Your task to perform on an android device: show emergency info Image 0: 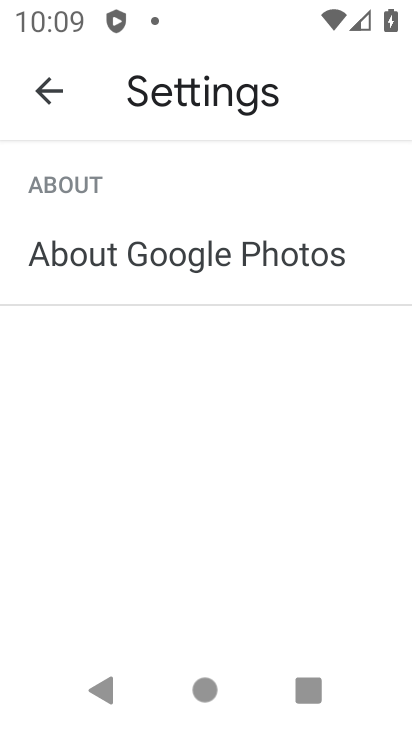
Step 0: press home button
Your task to perform on an android device: show emergency info Image 1: 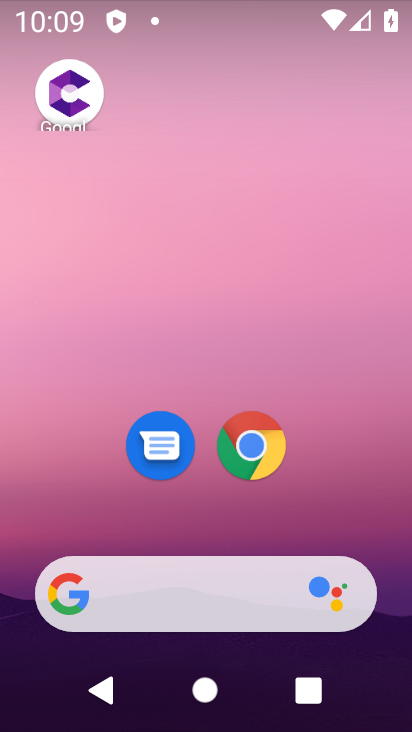
Step 1: drag from (236, 724) to (231, 9)
Your task to perform on an android device: show emergency info Image 2: 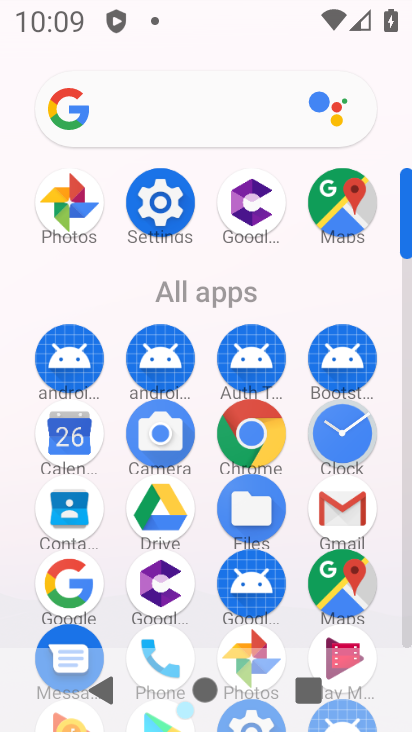
Step 2: click (152, 201)
Your task to perform on an android device: show emergency info Image 3: 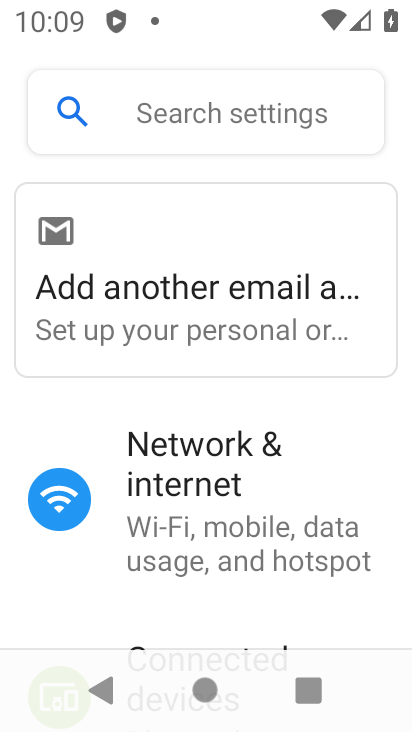
Step 3: drag from (329, 635) to (319, 102)
Your task to perform on an android device: show emergency info Image 4: 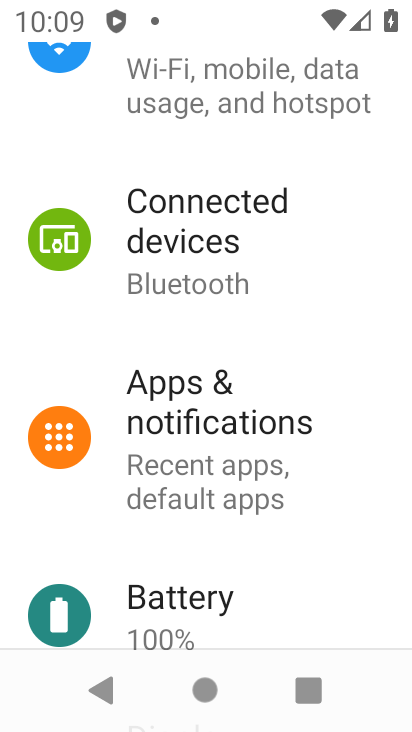
Step 4: drag from (325, 635) to (326, 113)
Your task to perform on an android device: show emergency info Image 5: 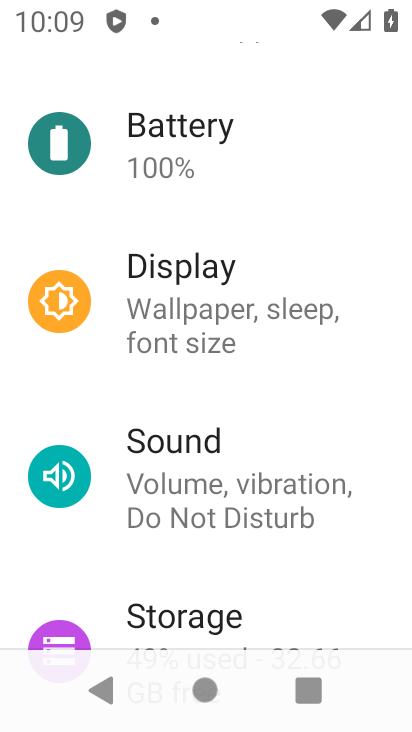
Step 5: drag from (329, 630) to (332, 138)
Your task to perform on an android device: show emergency info Image 6: 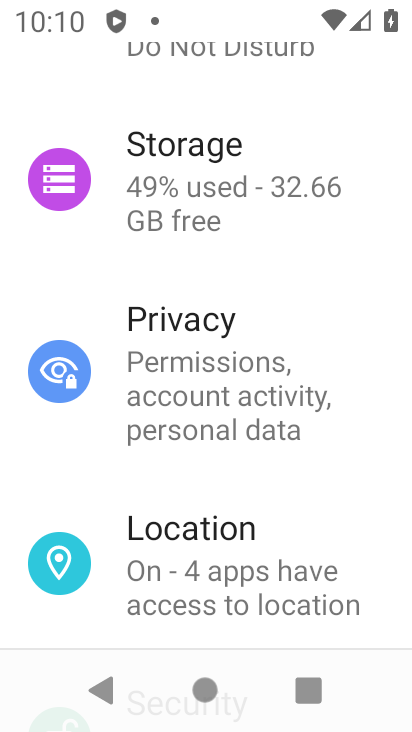
Step 6: drag from (322, 638) to (310, 164)
Your task to perform on an android device: show emergency info Image 7: 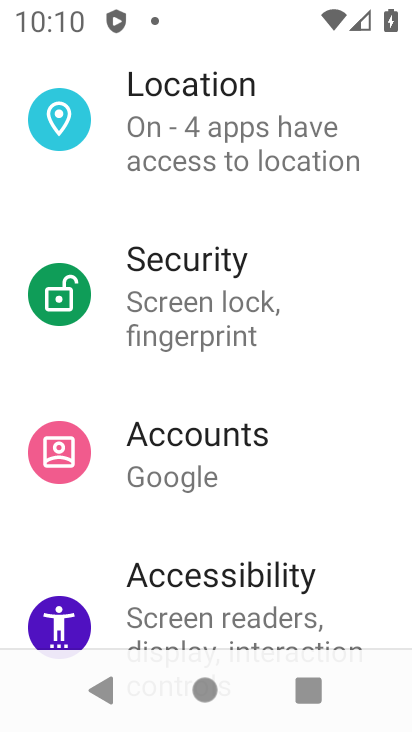
Step 7: drag from (339, 624) to (333, 147)
Your task to perform on an android device: show emergency info Image 8: 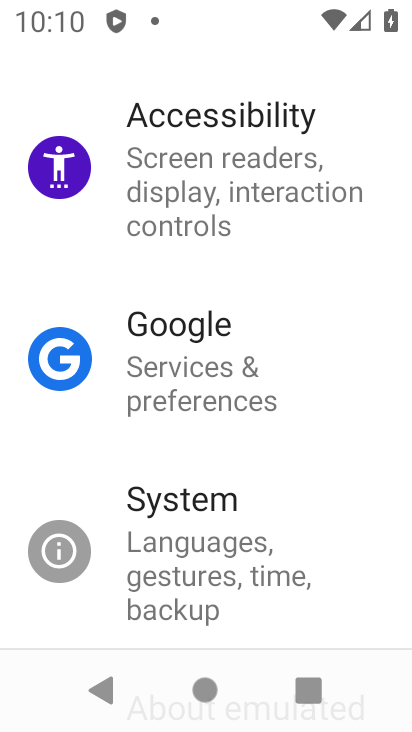
Step 8: drag from (326, 639) to (323, 105)
Your task to perform on an android device: show emergency info Image 9: 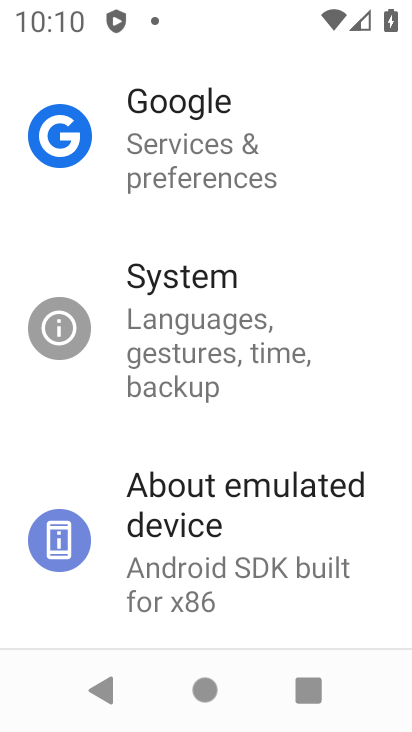
Step 9: click (173, 510)
Your task to perform on an android device: show emergency info Image 10: 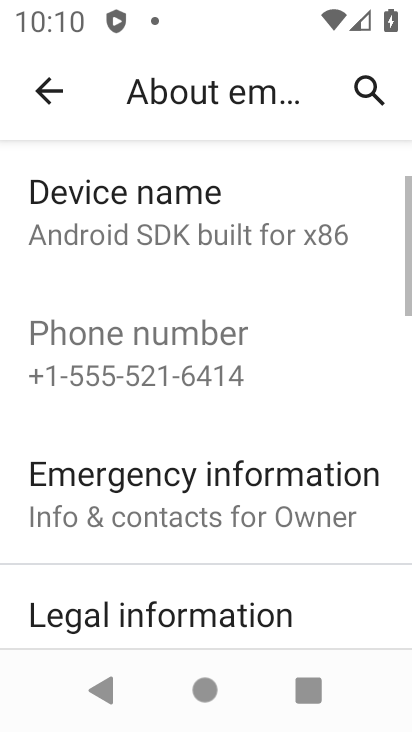
Step 10: click (154, 480)
Your task to perform on an android device: show emergency info Image 11: 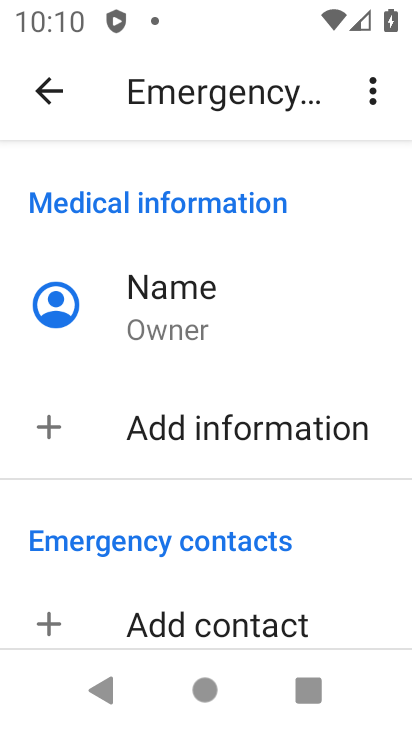
Step 11: task complete